Your task to perform on an android device: change the upload size in google photos Image 0: 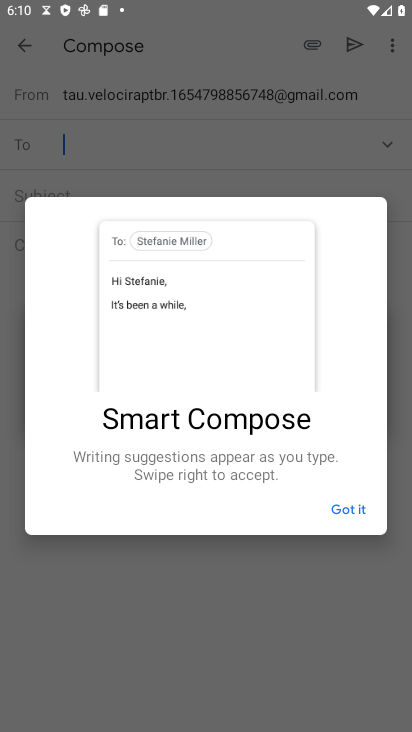
Step 0: press back button
Your task to perform on an android device: change the upload size in google photos Image 1: 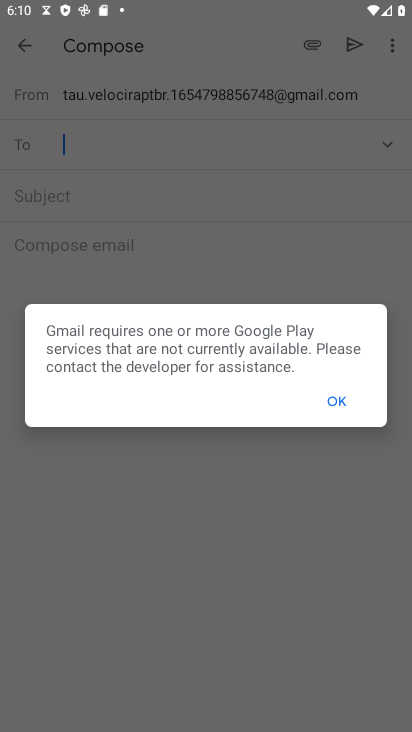
Step 1: press home button
Your task to perform on an android device: change the upload size in google photos Image 2: 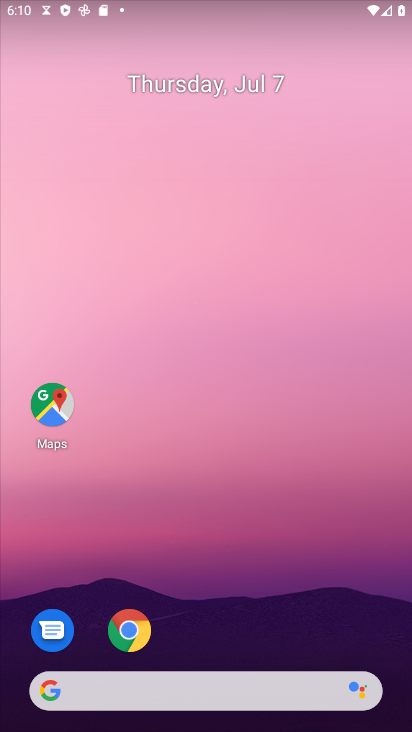
Step 2: drag from (190, 425) to (231, 91)
Your task to perform on an android device: change the upload size in google photos Image 3: 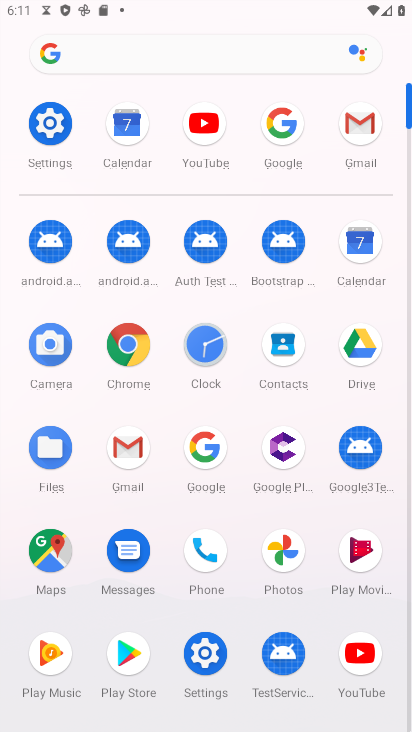
Step 3: click (282, 544)
Your task to perform on an android device: change the upload size in google photos Image 4: 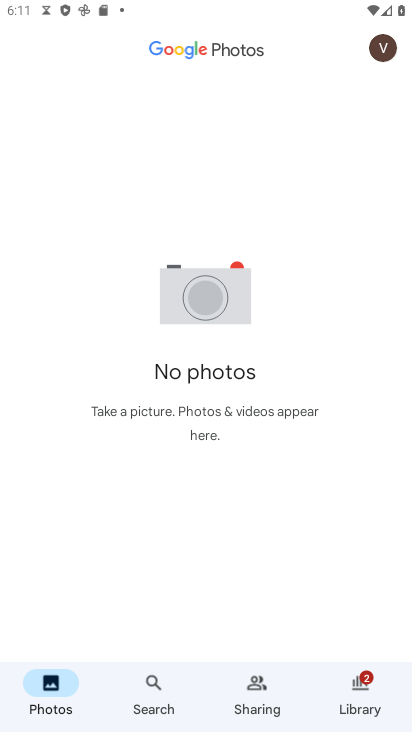
Step 4: click (374, 46)
Your task to perform on an android device: change the upload size in google photos Image 5: 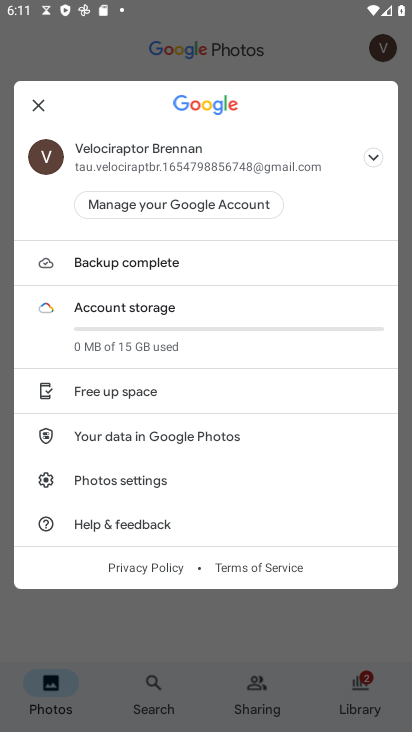
Step 5: click (122, 170)
Your task to perform on an android device: change the upload size in google photos Image 6: 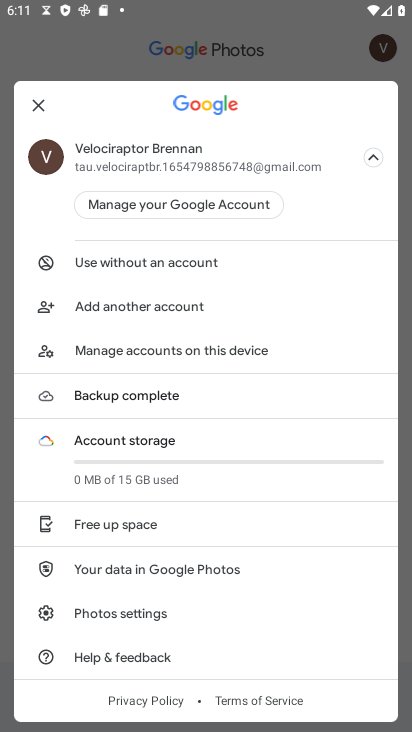
Step 6: drag from (153, 613) to (175, 493)
Your task to perform on an android device: change the upload size in google photos Image 7: 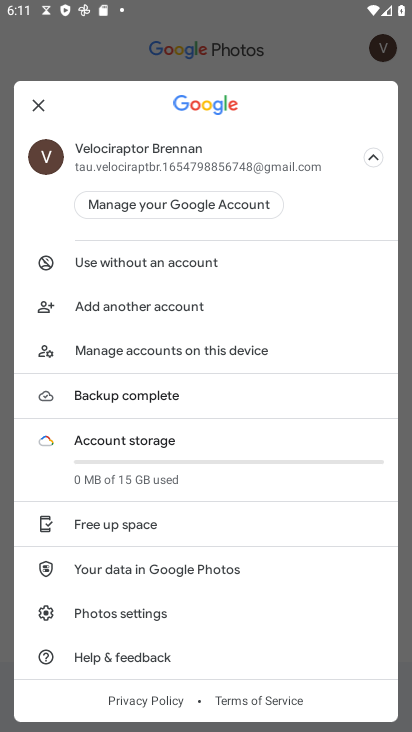
Step 7: click (116, 612)
Your task to perform on an android device: change the upload size in google photos Image 8: 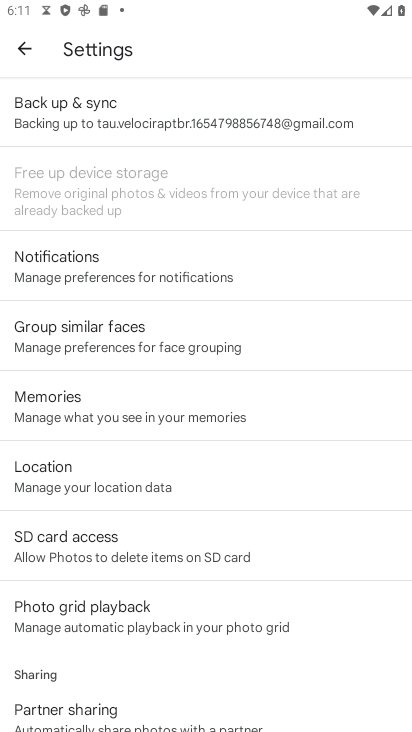
Step 8: click (113, 124)
Your task to perform on an android device: change the upload size in google photos Image 9: 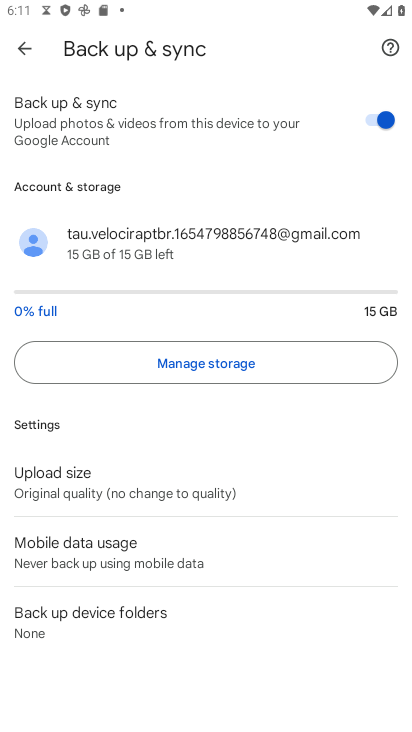
Step 9: click (89, 488)
Your task to perform on an android device: change the upload size in google photos Image 10: 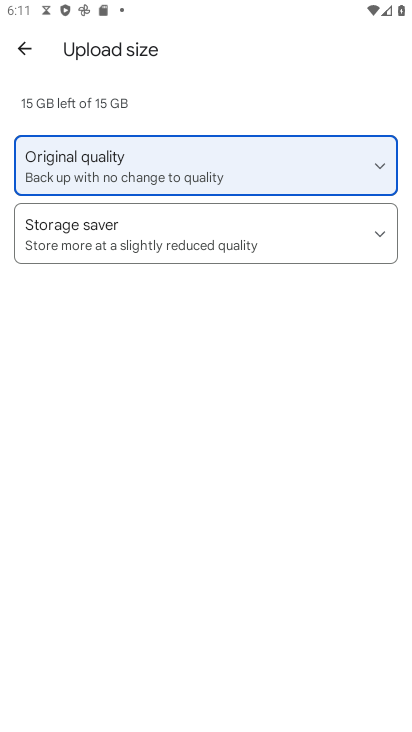
Step 10: click (206, 222)
Your task to perform on an android device: change the upload size in google photos Image 11: 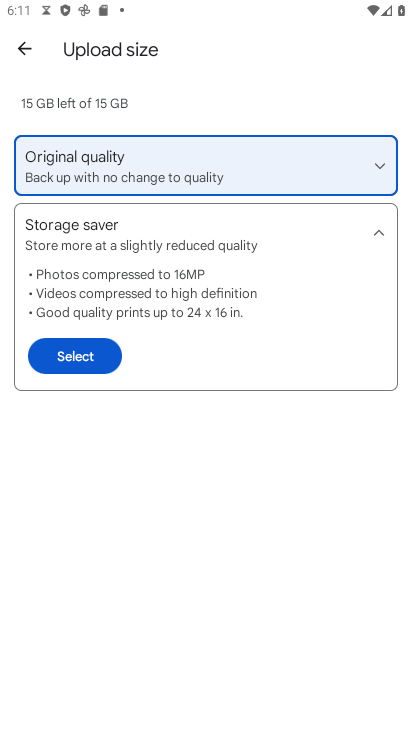
Step 11: click (70, 354)
Your task to perform on an android device: change the upload size in google photos Image 12: 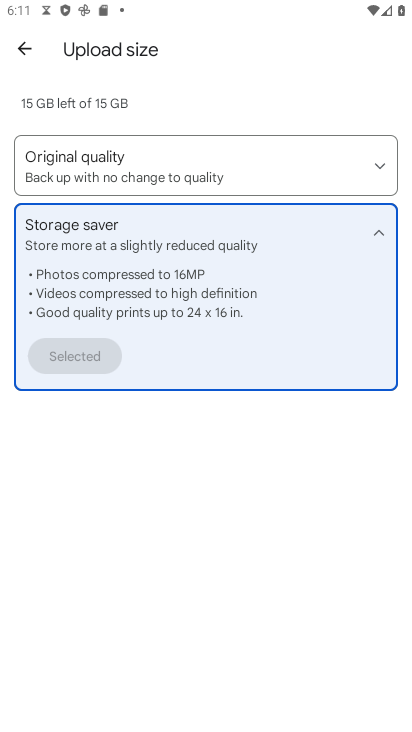
Step 12: task complete